Your task to perform on an android device: Open Maps and search for coffee Image 0: 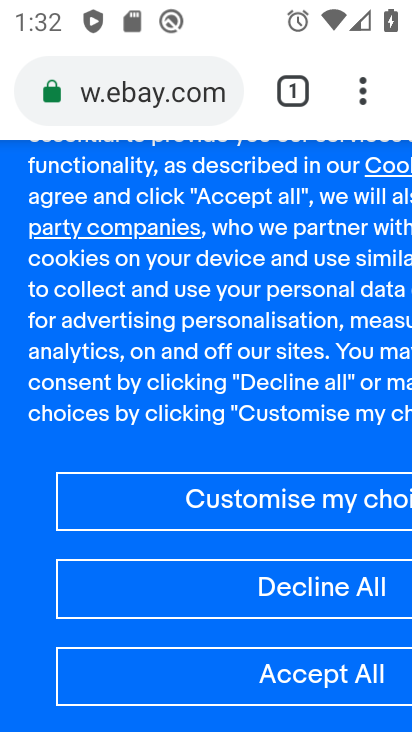
Step 0: press home button
Your task to perform on an android device: Open Maps and search for coffee Image 1: 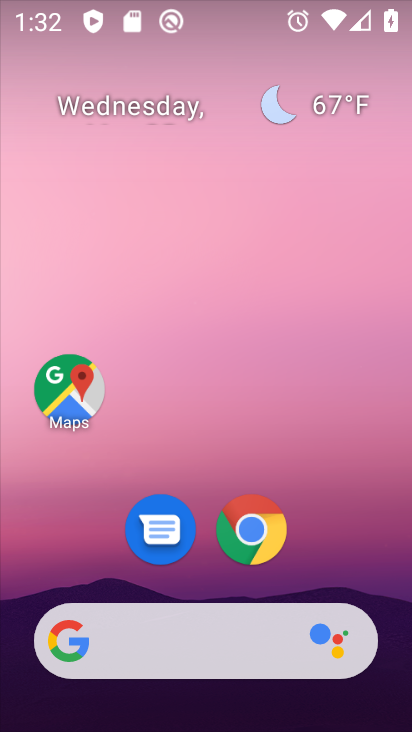
Step 1: click (68, 392)
Your task to perform on an android device: Open Maps and search for coffee Image 2: 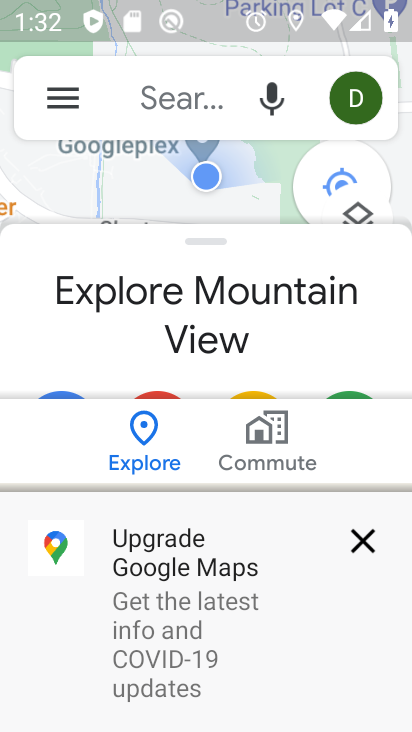
Step 2: click (176, 106)
Your task to perform on an android device: Open Maps and search for coffee Image 3: 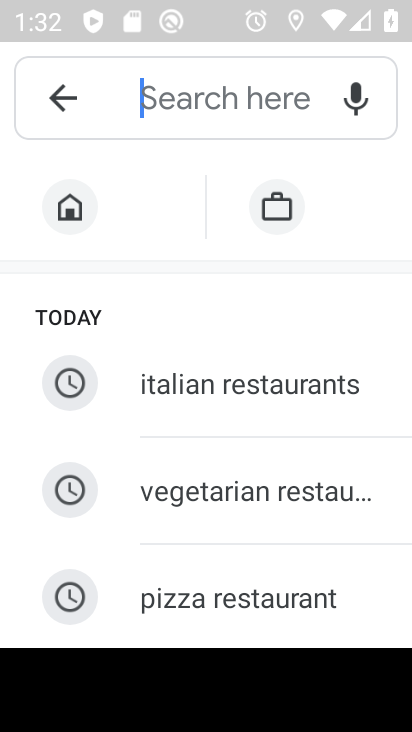
Step 3: type "coffee"
Your task to perform on an android device: Open Maps and search for coffee Image 4: 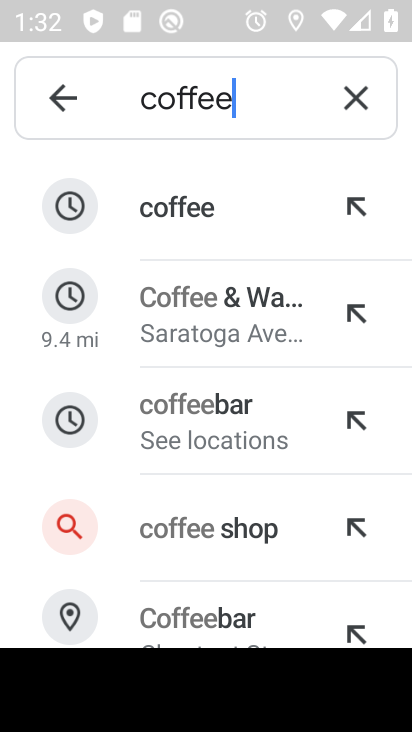
Step 4: click (195, 211)
Your task to perform on an android device: Open Maps and search for coffee Image 5: 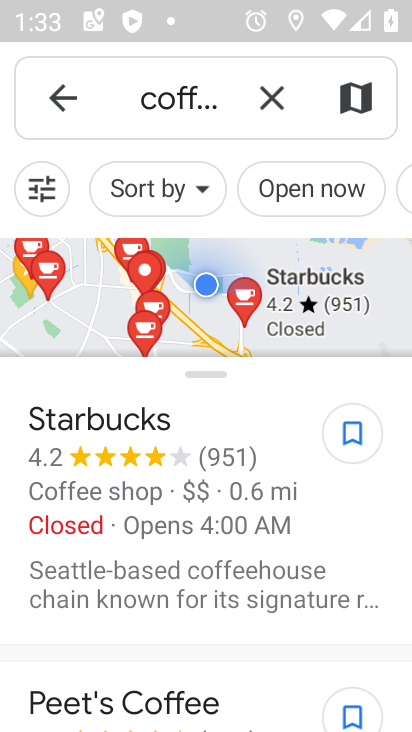
Step 5: task complete